Your task to perform on an android device: Search for Mexican restaurants on Maps Image 0: 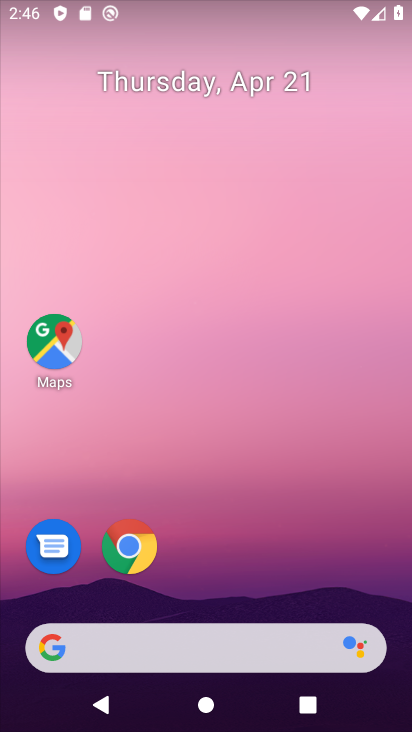
Step 0: click (50, 347)
Your task to perform on an android device: Search for Mexican restaurants on Maps Image 1: 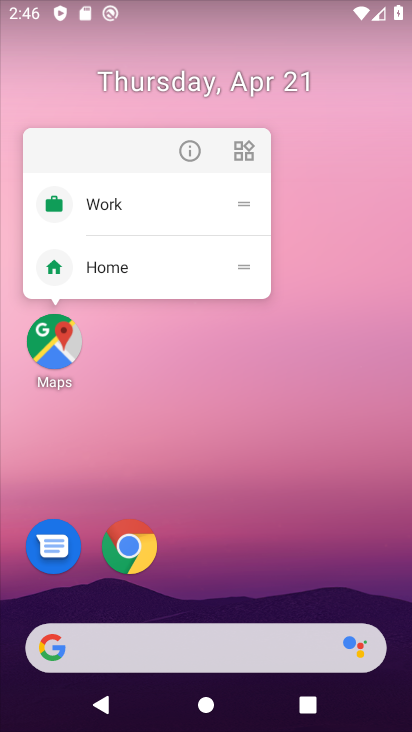
Step 1: click (49, 347)
Your task to perform on an android device: Search for Mexican restaurants on Maps Image 2: 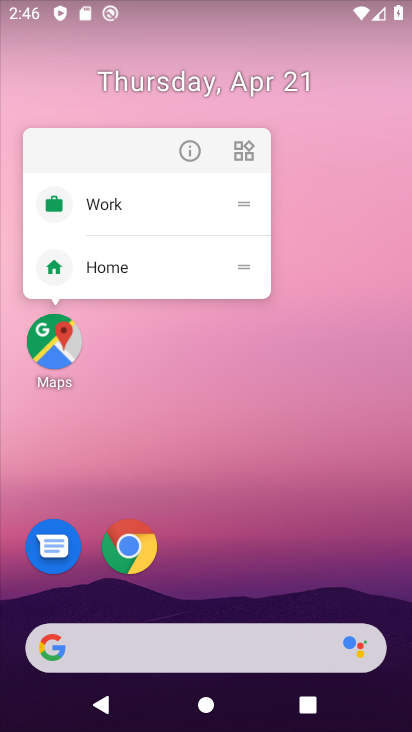
Step 2: click (51, 347)
Your task to perform on an android device: Search for Mexican restaurants on Maps Image 3: 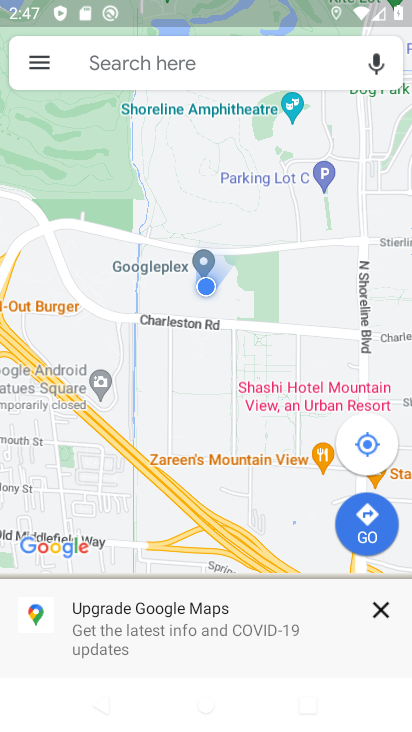
Step 3: click (41, 65)
Your task to perform on an android device: Search for Mexican restaurants on Maps Image 4: 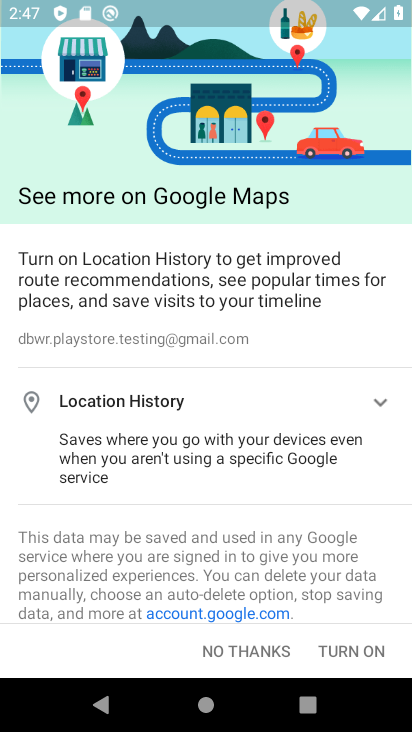
Step 4: click (255, 652)
Your task to perform on an android device: Search for Mexican restaurants on Maps Image 5: 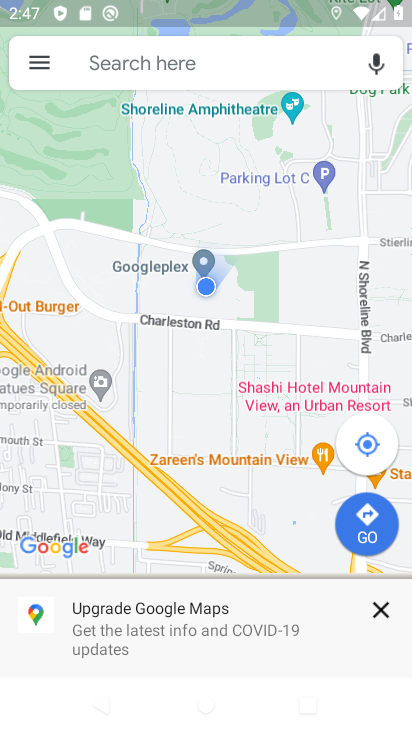
Step 5: click (109, 62)
Your task to perform on an android device: Search for Mexican restaurants on Maps Image 6: 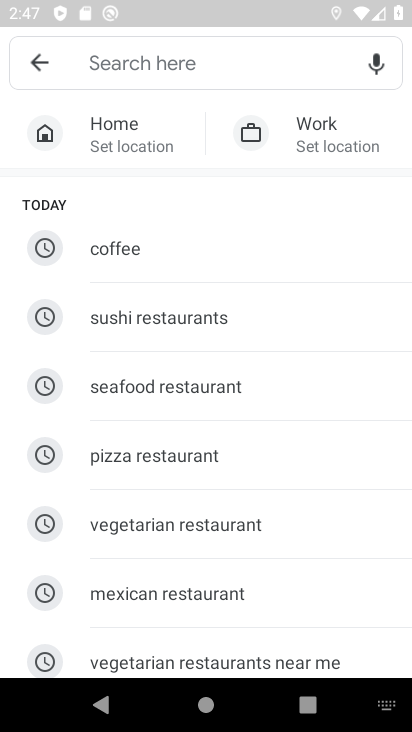
Step 6: click (218, 588)
Your task to perform on an android device: Search for Mexican restaurants on Maps Image 7: 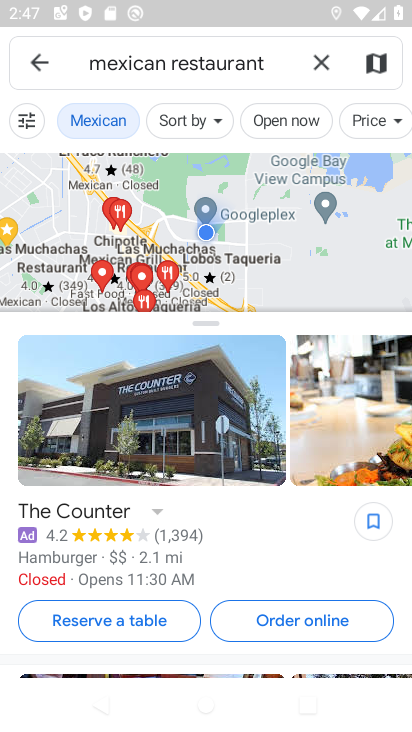
Step 7: task complete